Your task to perform on an android device: turn on notifications settings in the gmail app Image 0: 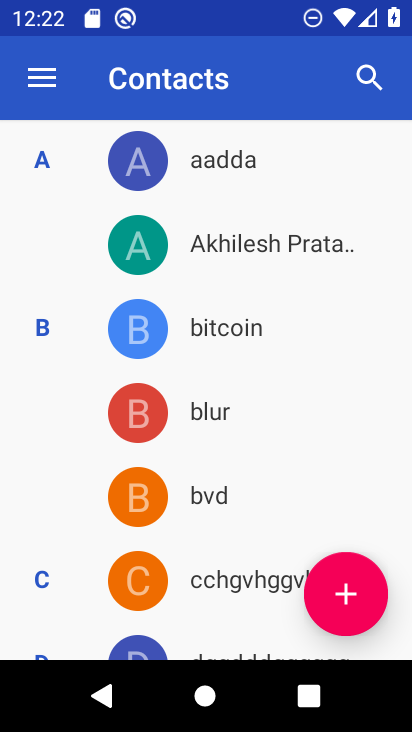
Step 0: press back button
Your task to perform on an android device: turn on notifications settings in the gmail app Image 1: 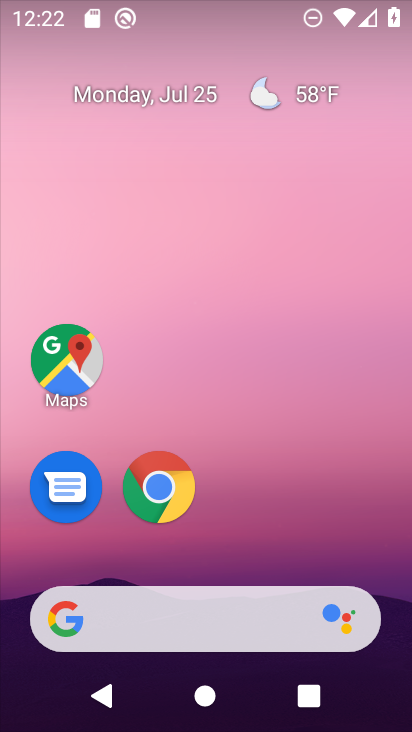
Step 1: drag from (244, 487) to (296, 37)
Your task to perform on an android device: turn on notifications settings in the gmail app Image 2: 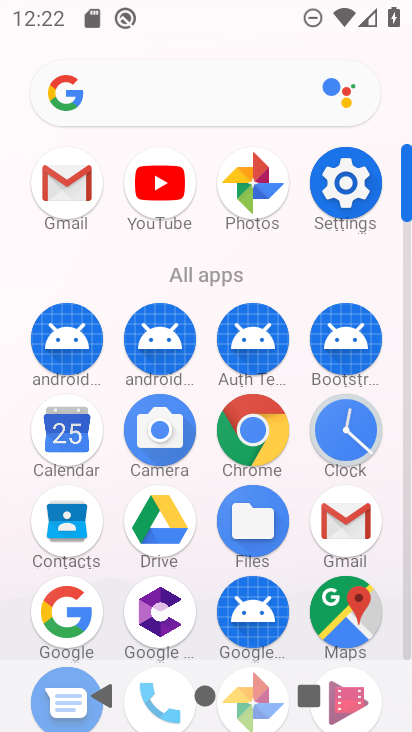
Step 2: click (51, 174)
Your task to perform on an android device: turn on notifications settings in the gmail app Image 3: 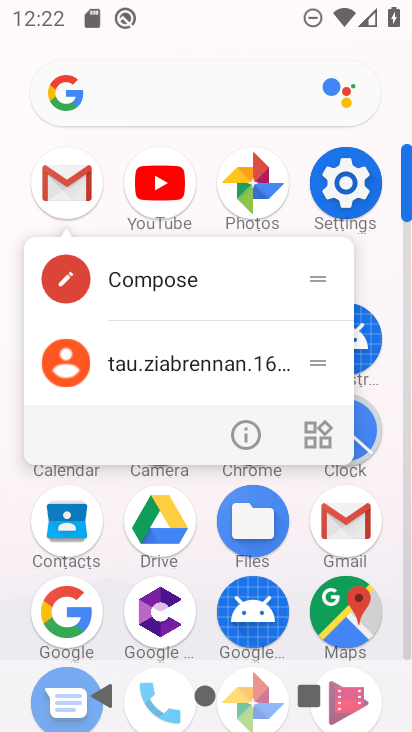
Step 3: click (237, 440)
Your task to perform on an android device: turn on notifications settings in the gmail app Image 4: 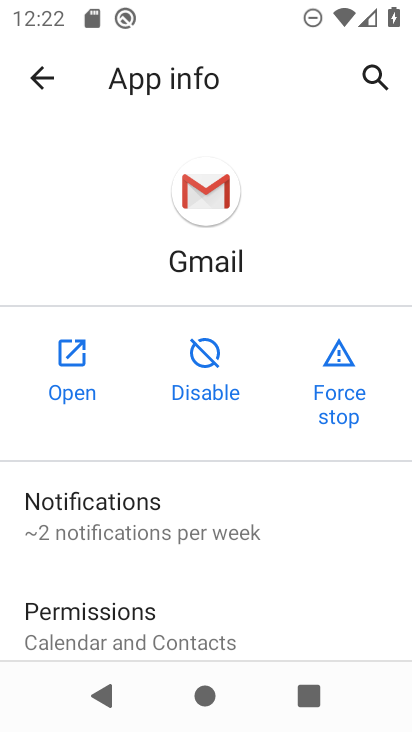
Step 4: click (137, 524)
Your task to perform on an android device: turn on notifications settings in the gmail app Image 5: 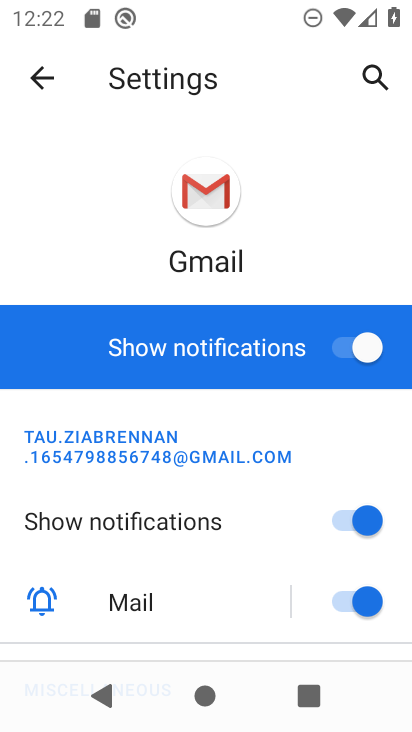
Step 5: task complete